Your task to perform on an android device: allow cookies in the chrome app Image 0: 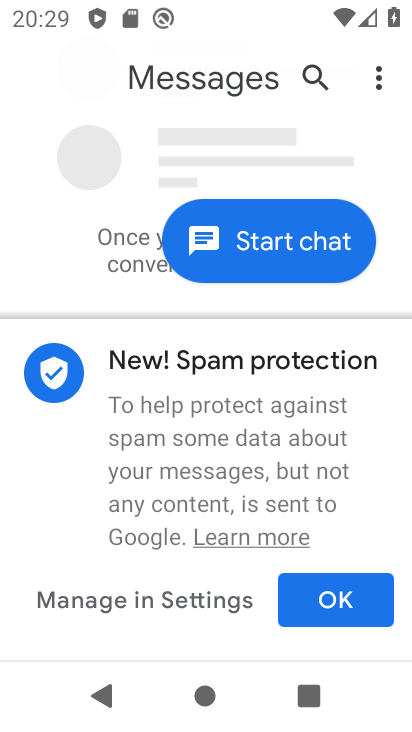
Step 0: press home button
Your task to perform on an android device: allow cookies in the chrome app Image 1: 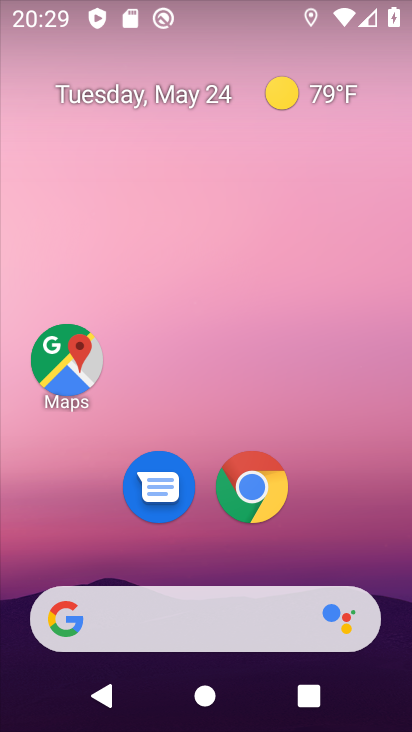
Step 1: click (252, 480)
Your task to perform on an android device: allow cookies in the chrome app Image 2: 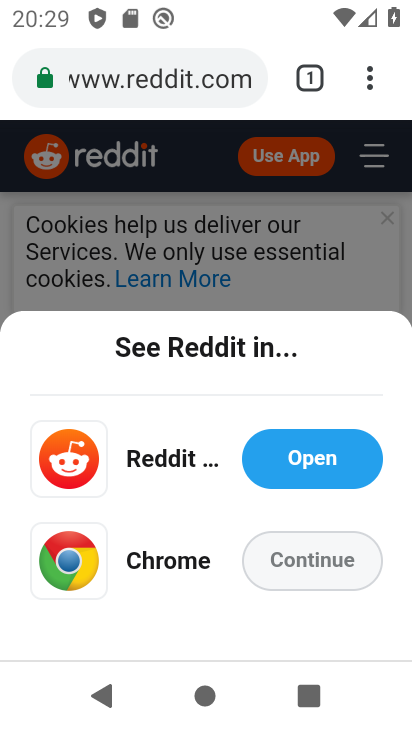
Step 2: press home button
Your task to perform on an android device: allow cookies in the chrome app Image 3: 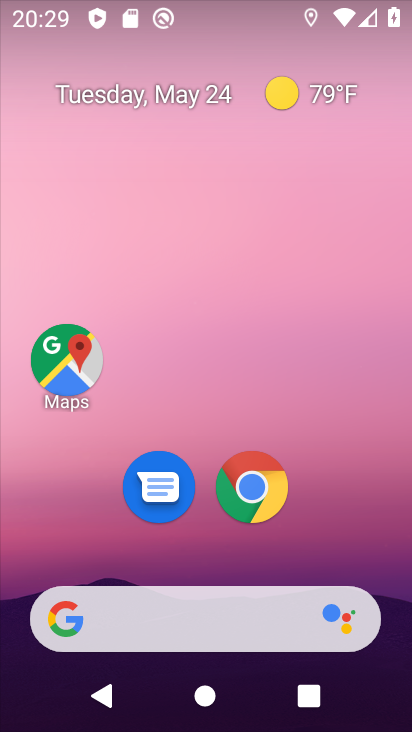
Step 3: click (254, 473)
Your task to perform on an android device: allow cookies in the chrome app Image 4: 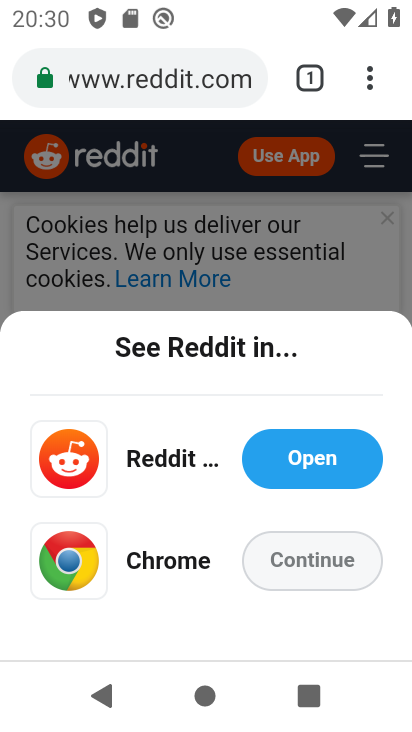
Step 4: drag from (365, 74) to (158, 546)
Your task to perform on an android device: allow cookies in the chrome app Image 5: 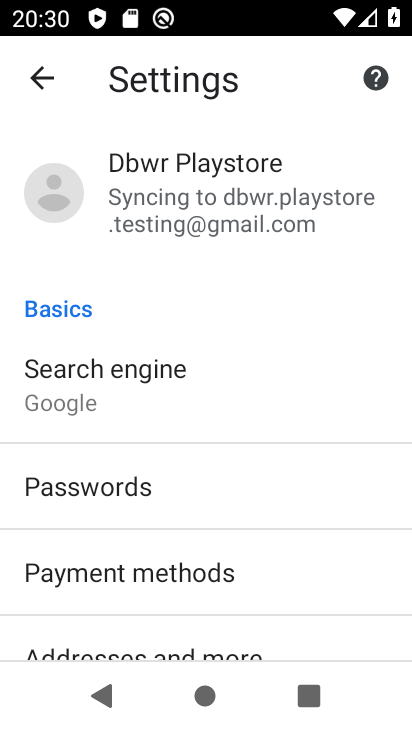
Step 5: drag from (300, 605) to (289, 278)
Your task to perform on an android device: allow cookies in the chrome app Image 6: 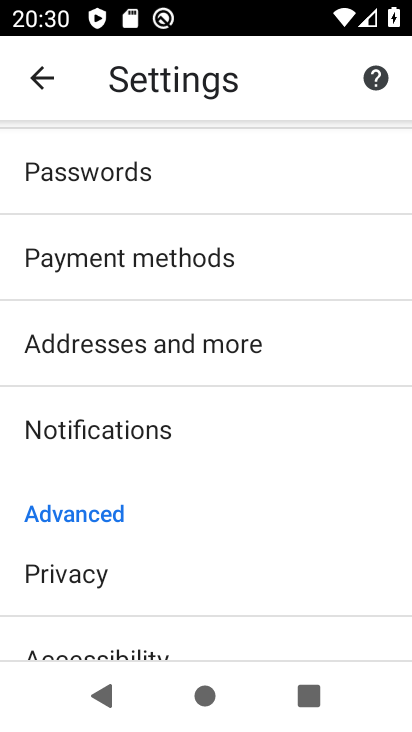
Step 6: drag from (220, 597) to (236, 294)
Your task to perform on an android device: allow cookies in the chrome app Image 7: 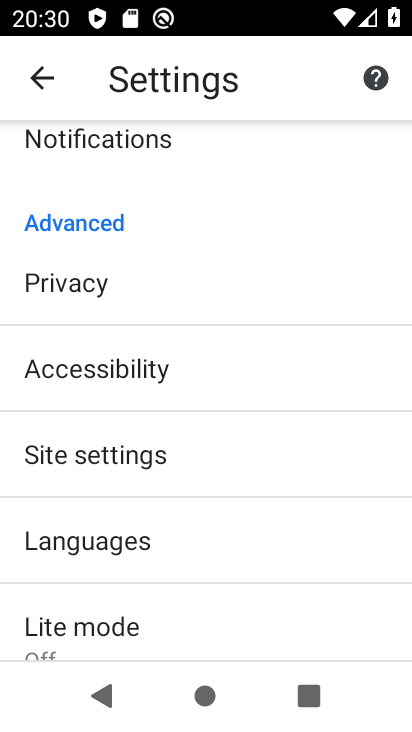
Step 7: click (137, 453)
Your task to perform on an android device: allow cookies in the chrome app Image 8: 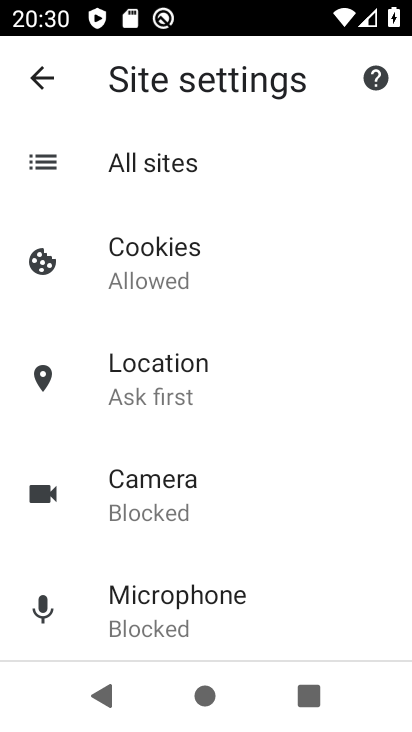
Step 8: click (138, 248)
Your task to perform on an android device: allow cookies in the chrome app Image 9: 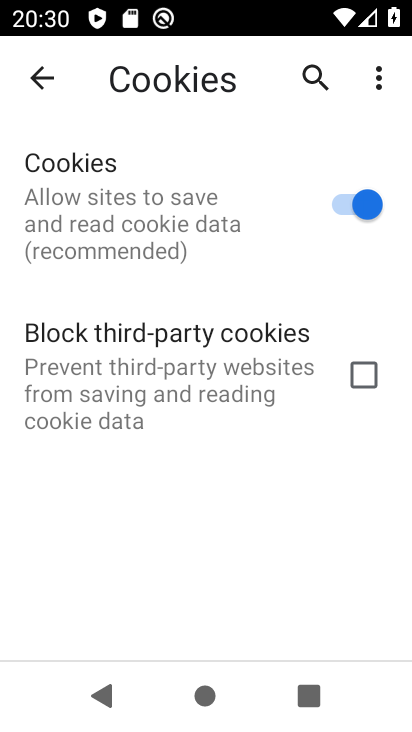
Step 9: task complete